Your task to perform on an android device: Go to calendar. Show me events next week Image 0: 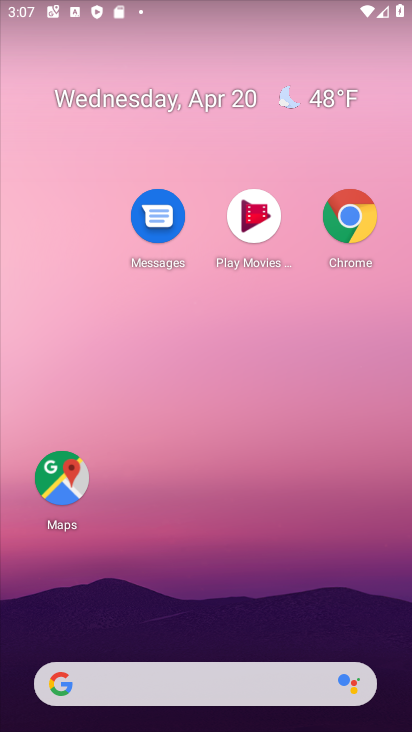
Step 0: drag from (318, 499) to (327, 341)
Your task to perform on an android device: Go to calendar. Show me events next week Image 1: 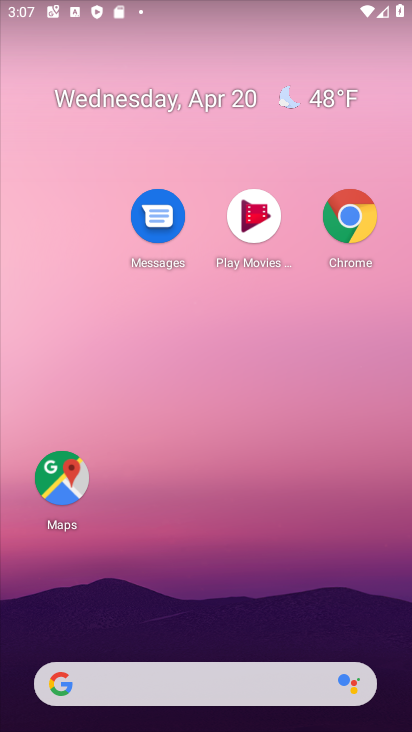
Step 1: drag from (173, 539) to (185, 94)
Your task to perform on an android device: Go to calendar. Show me events next week Image 2: 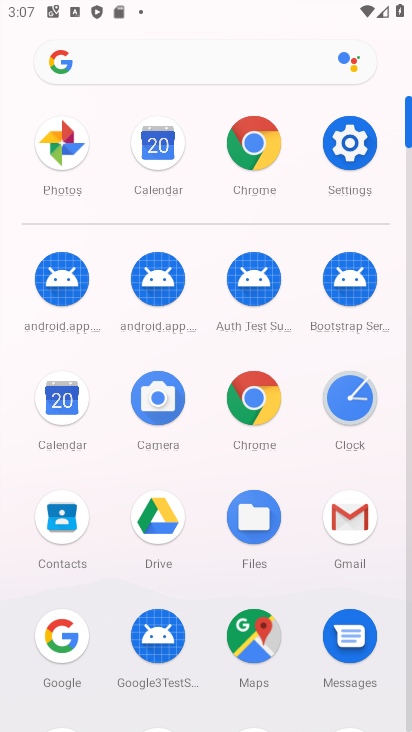
Step 2: click (155, 179)
Your task to perform on an android device: Go to calendar. Show me events next week Image 3: 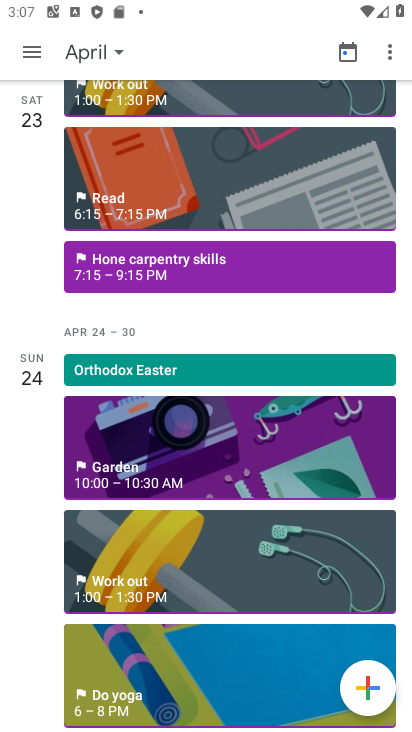
Step 3: click (109, 64)
Your task to perform on an android device: Go to calendar. Show me events next week Image 4: 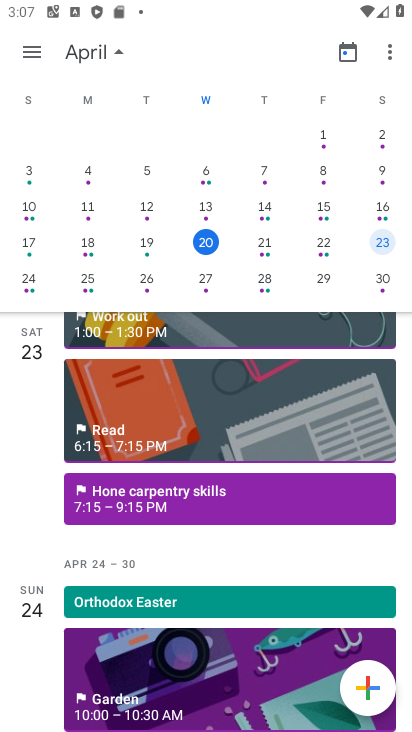
Step 4: click (33, 279)
Your task to perform on an android device: Go to calendar. Show me events next week Image 5: 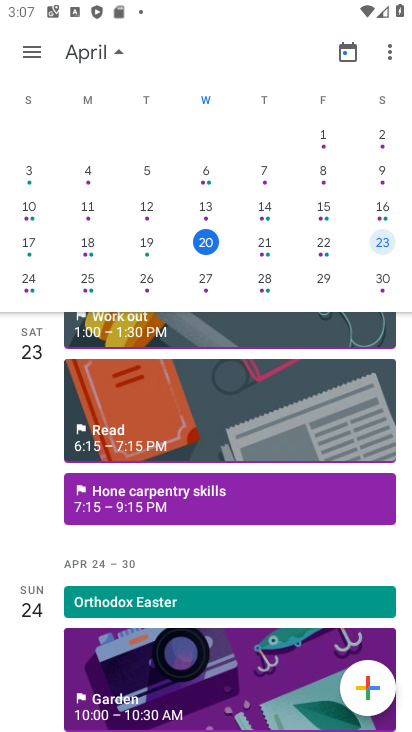
Step 5: click (30, 280)
Your task to perform on an android device: Go to calendar. Show me events next week Image 6: 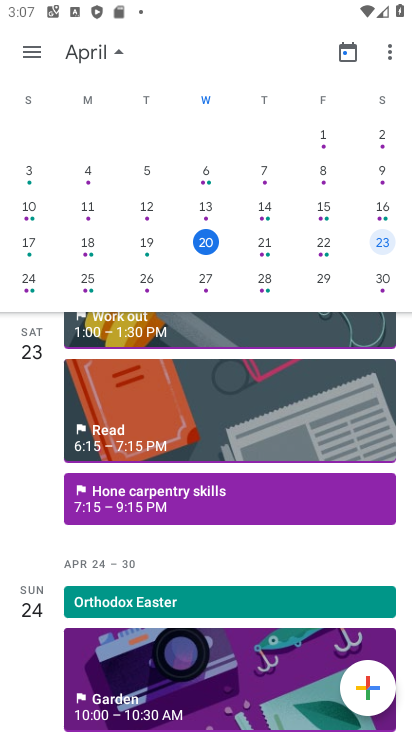
Step 6: click (23, 284)
Your task to perform on an android device: Go to calendar. Show me events next week Image 7: 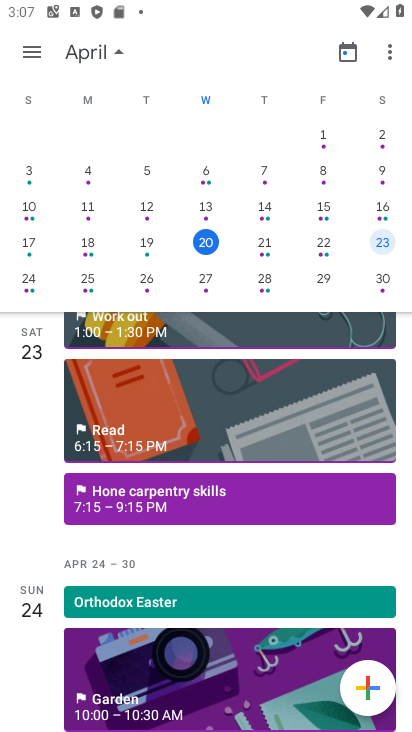
Step 7: click (35, 52)
Your task to perform on an android device: Go to calendar. Show me events next week Image 8: 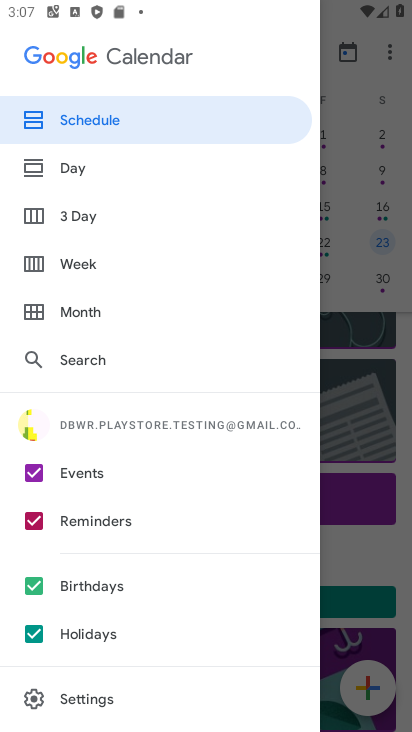
Step 8: click (105, 265)
Your task to perform on an android device: Go to calendar. Show me events next week Image 9: 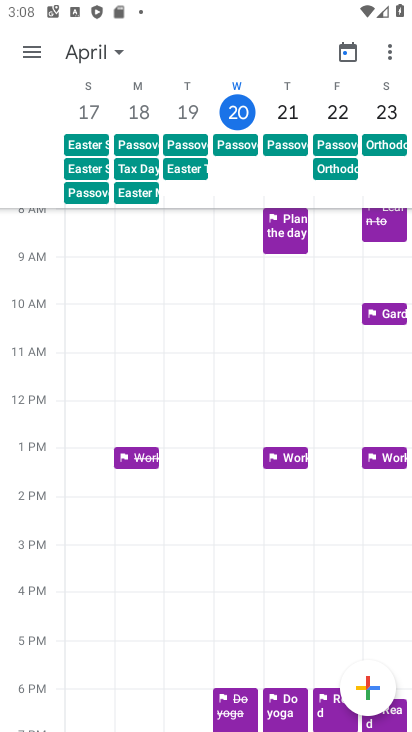
Step 9: task complete